Your task to perform on an android device: What is the recent news? Image 0: 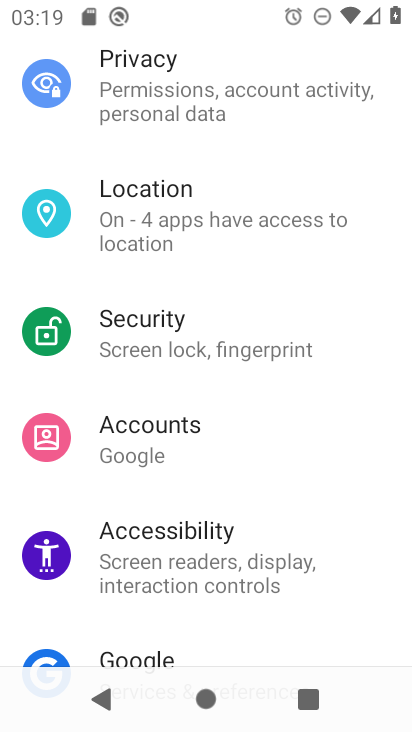
Step 0: press home button
Your task to perform on an android device: What is the recent news? Image 1: 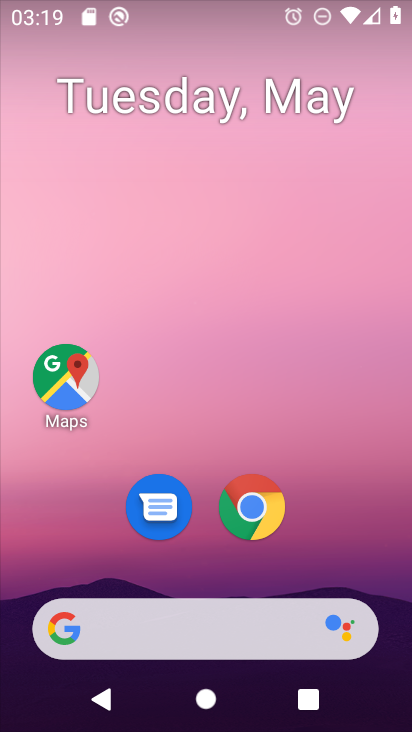
Step 1: drag from (207, 575) to (232, 259)
Your task to perform on an android device: What is the recent news? Image 2: 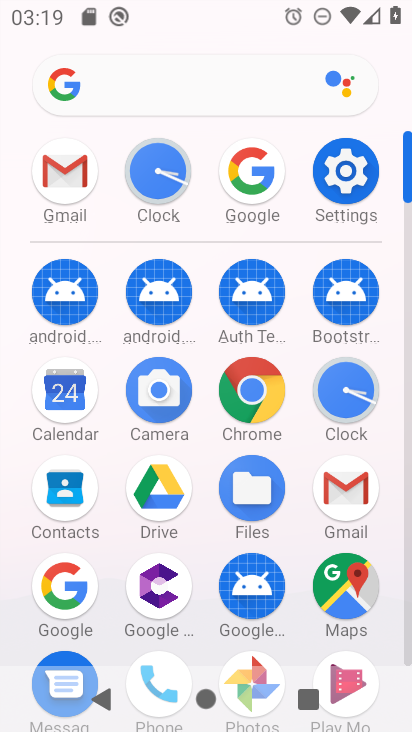
Step 2: click (246, 185)
Your task to perform on an android device: What is the recent news? Image 3: 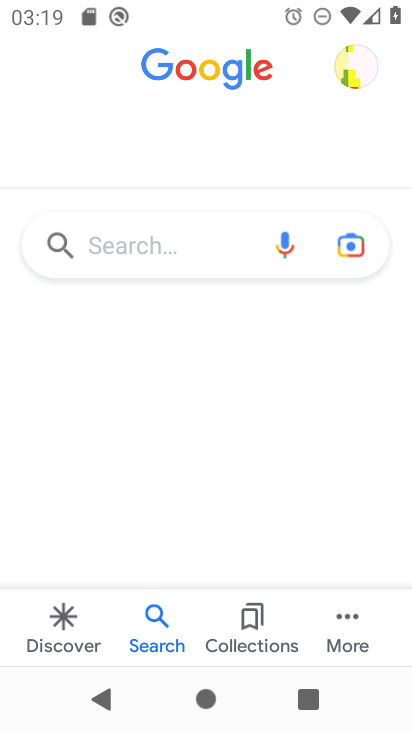
Step 3: click (201, 249)
Your task to perform on an android device: What is the recent news? Image 4: 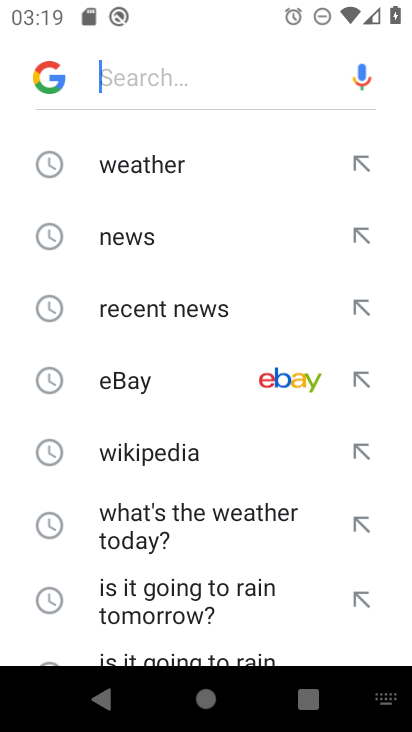
Step 4: click (201, 249)
Your task to perform on an android device: What is the recent news? Image 5: 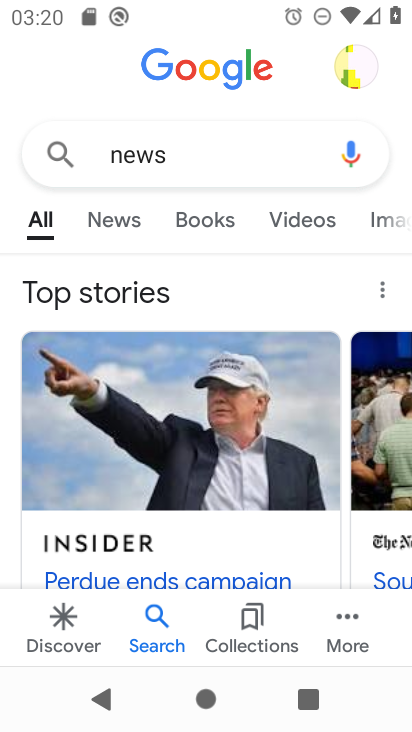
Step 5: click (122, 225)
Your task to perform on an android device: What is the recent news? Image 6: 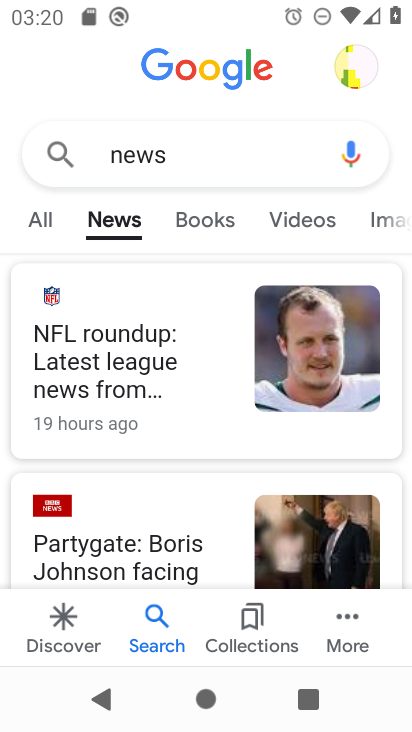
Step 6: task complete